Your task to perform on an android device: Turn on the flashlight Image 0: 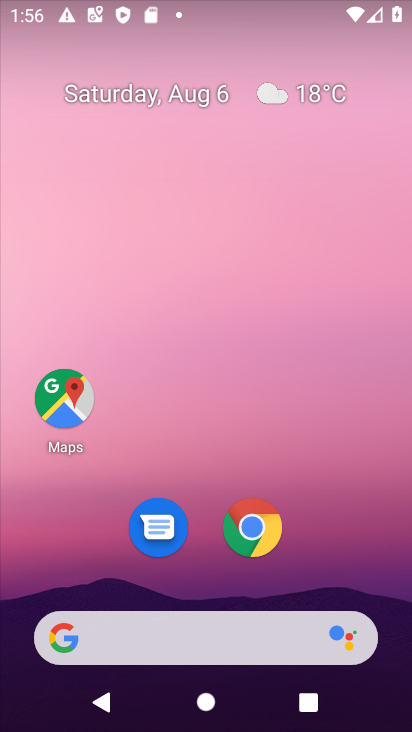
Step 0: drag from (196, 6) to (205, 515)
Your task to perform on an android device: Turn on the flashlight Image 1: 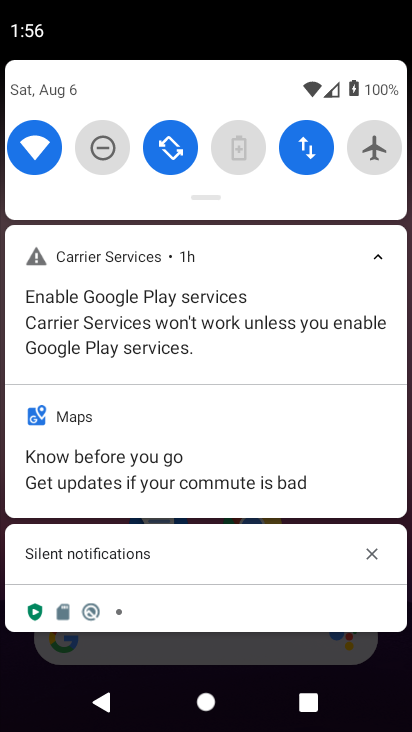
Step 1: task complete